Your task to perform on an android device: open the mobile data screen to see how much data has been used Image 0: 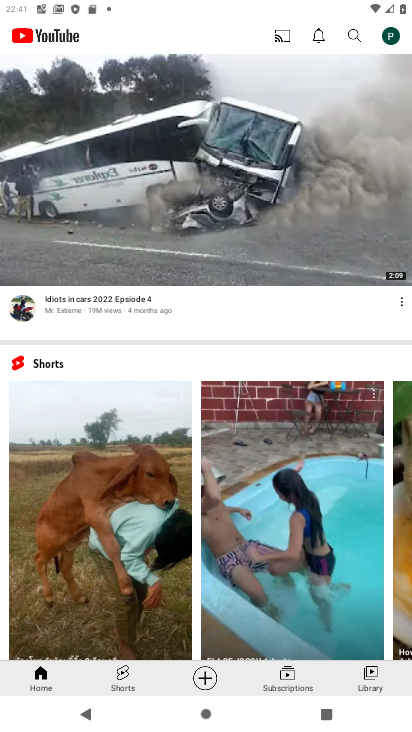
Step 0: press home button
Your task to perform on an android device: open the mobile data screen to see how much data has been used Image 1: 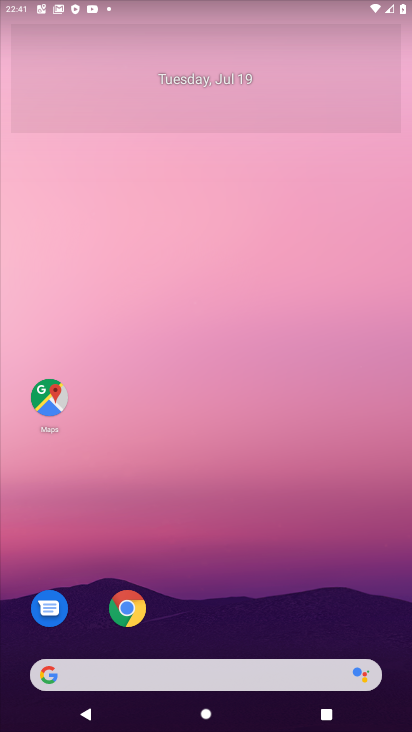
Step 1: drag from (275, 612) to (284, 54)
Your task to perform on an android device: open the mobile data screen to see how much data has been used Image 2: 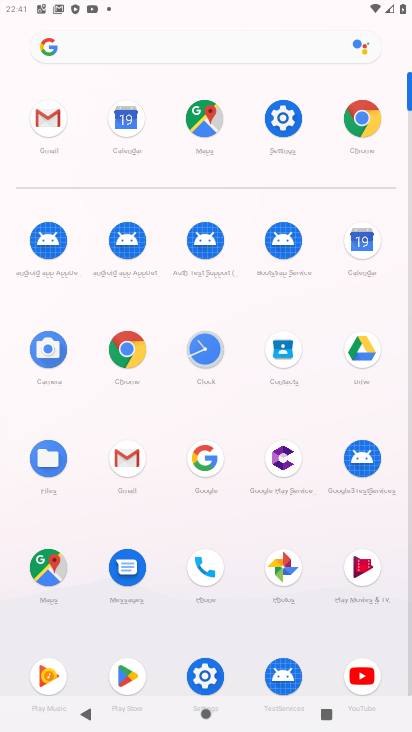
Step 2: click (274, 119)
Your task to perform on an android device: open the mobile data screen to see how much data has been used Image 3: 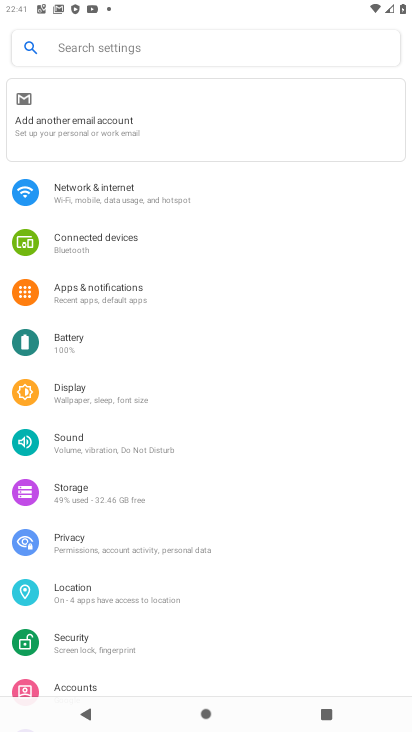
Step 3: click (156, 189)
Your task to perform on an android device: open the mobile data screen to see how much data has been used Image 4: 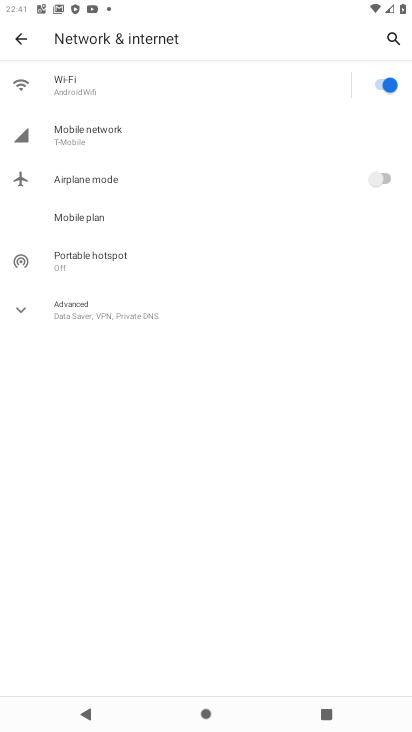
Step 4: click (123, 125)
Your task to perform on an android device: open the mobile data screen to see how much data has been used Image 5: 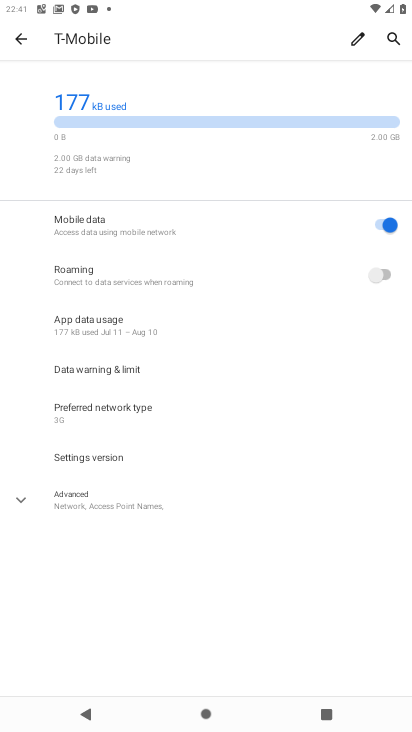
Step 5: task complete